Your task to perform on an android device: Open Yahoo.com Image 0: 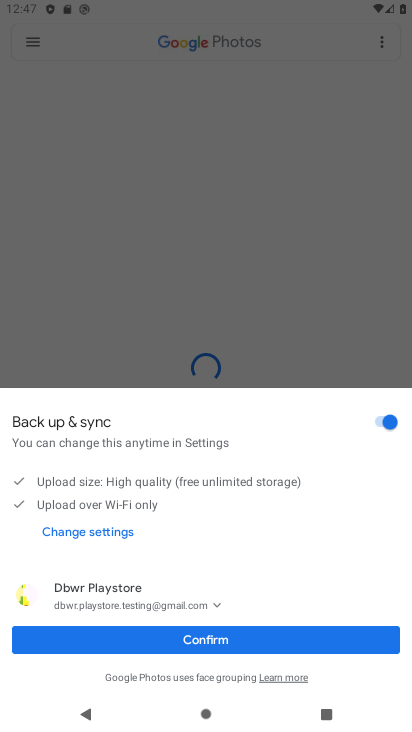
Step 0: click (373, 641)
Your task to perform on an android device: Open Yahoo.com Image 1: 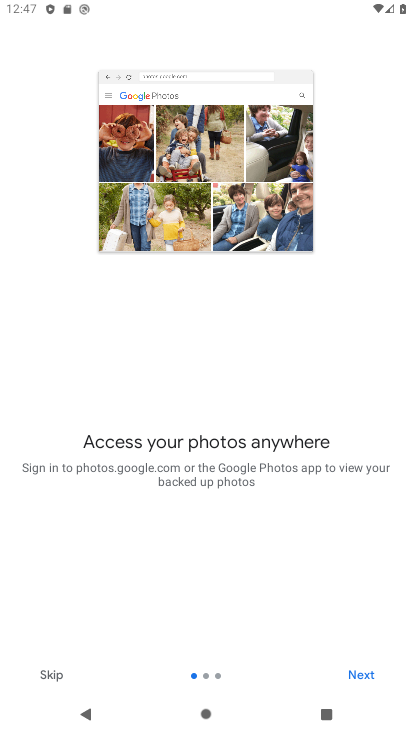
Step 1: press home button
Your task to perform on an android device: Open Yahoo.com Image 2: 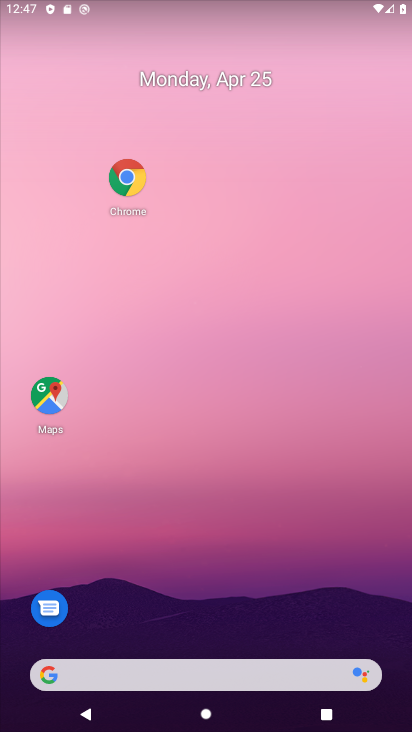
Step 2: drag from (216, 551) to (249, 73)
Your task to perform on an android device: Open Yahoo.com Image 3: 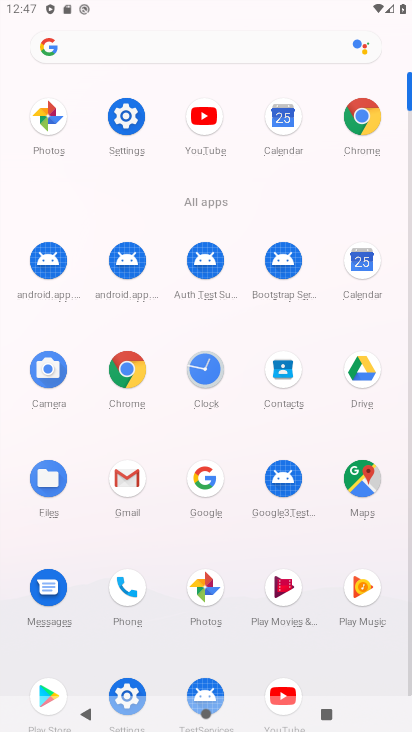
Step 3: click (125, 388)
Your task to perform on an android device: Open Yahoo.com Image 4: 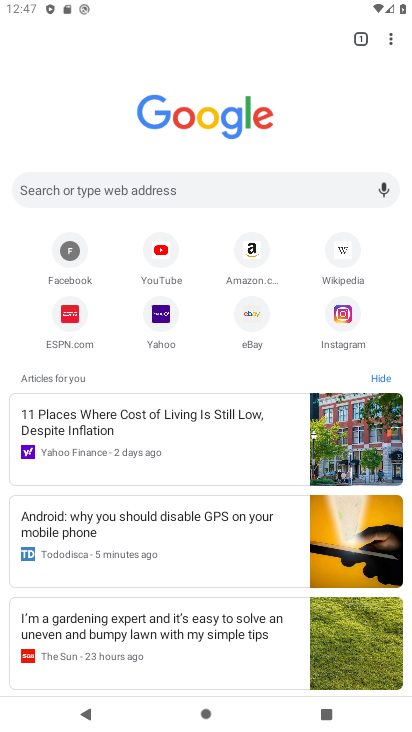
Step 4: click (165, 321)
Your task to perform on an android device: Open Yahoo.com Image 5: 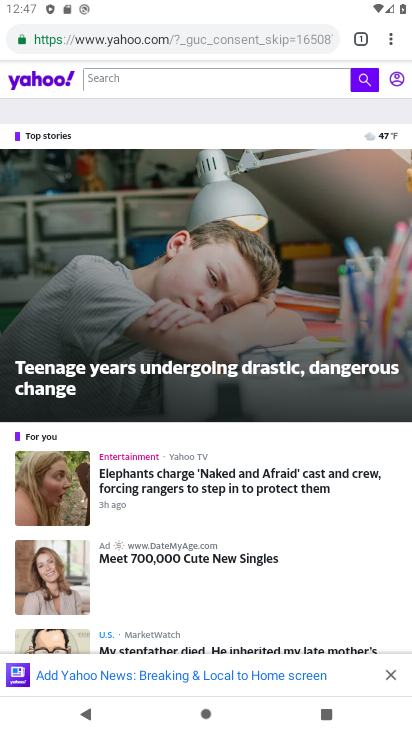
Step 5: task complete